Your task to perform on an android device: check storage Image 0: 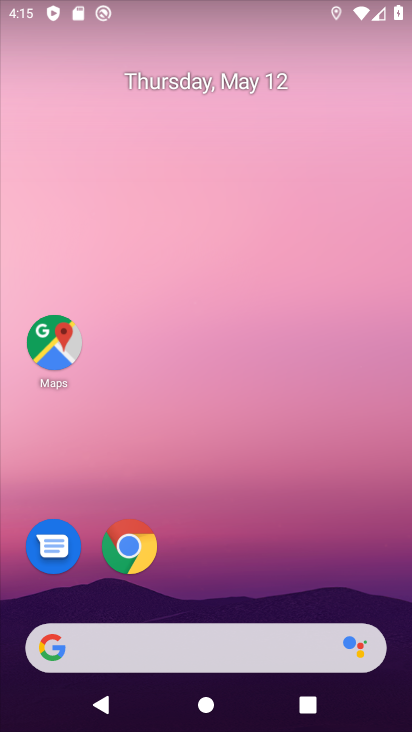
Step 0: drag from (297, 535) to (266, 23)
Your task to perform on an android device: check storage Image 1: 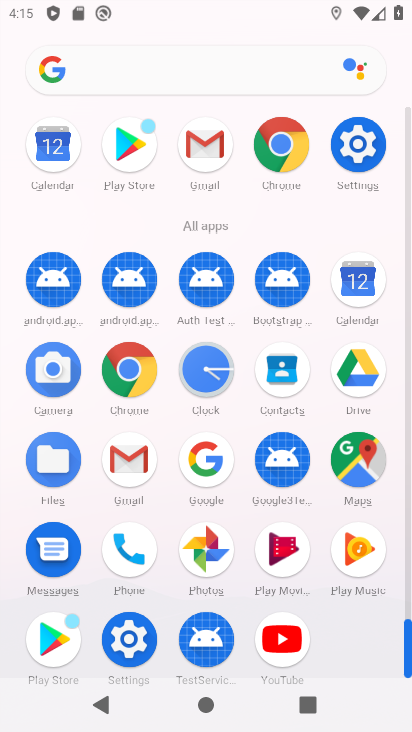
Step 1: drag from (2, 587) to (5, 273)
Your task to perform on an android device: check storage Image 2: 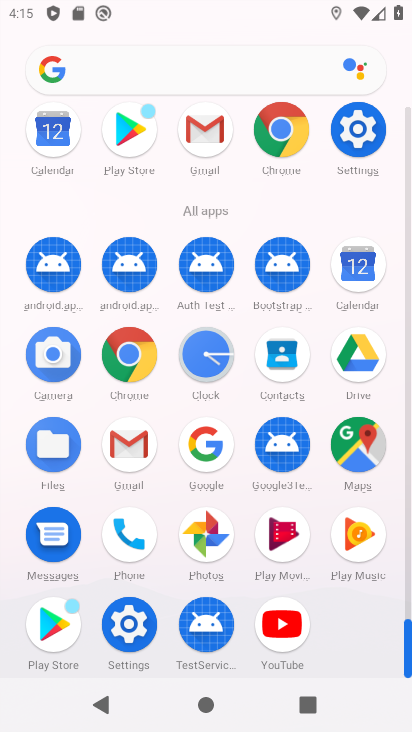
Step 2: click (124, 621)
Your task to perform on an android device: check storage Image 3: 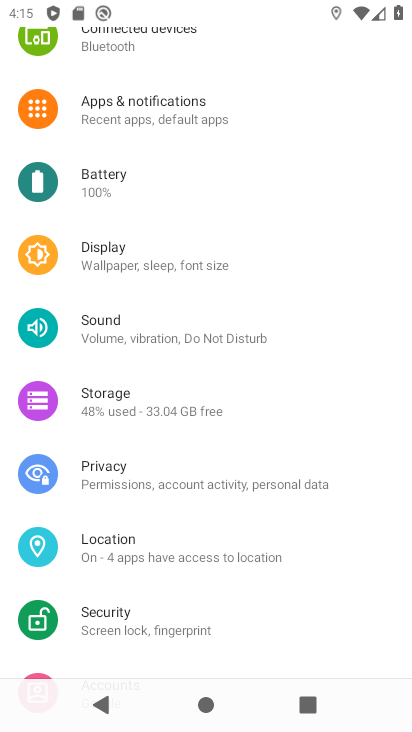
Step 3: drag from (195, 419) to (196, 162)
Your task to perform on an android device: check storage Image 4: 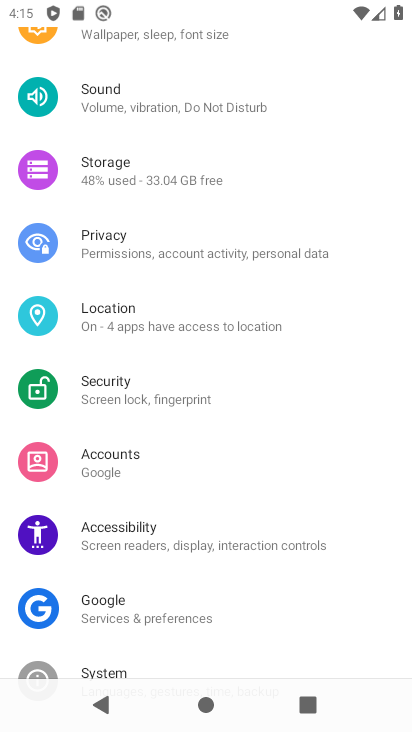
Step 4: drag from (250, 156) to (230, 465)
Your task to perform on an android device: check storage Image 5: 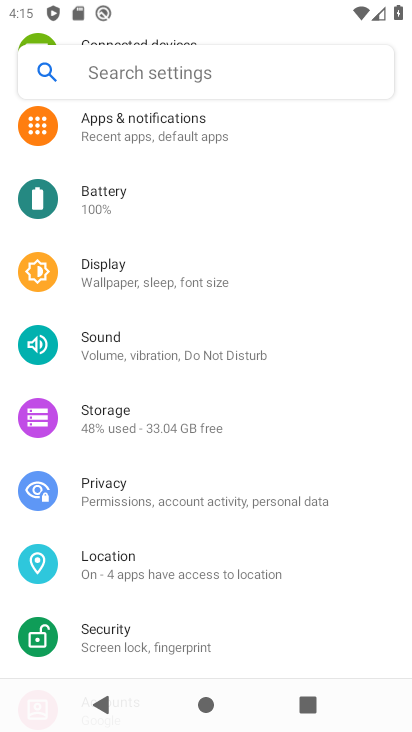
Step 5: drag from (197, 223) to (174, 593)
Your task to perform on an android device: check storage Image 6: 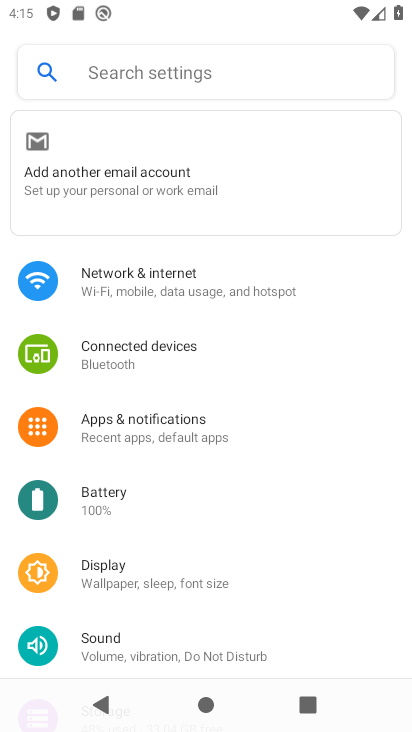
Step 6: drag from (209, 577) to (218, 288)
Your task to perform on an android device: check storage Image 7: 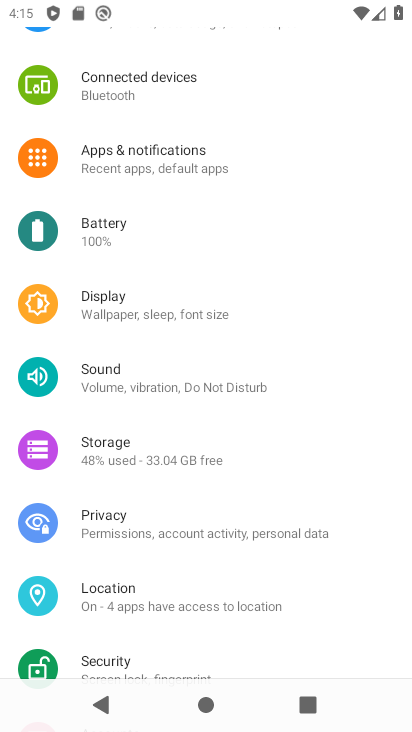
Step 7: drag from (127, 614) to (205, 230)
Your task to perform on an android device: check storage Image 8: 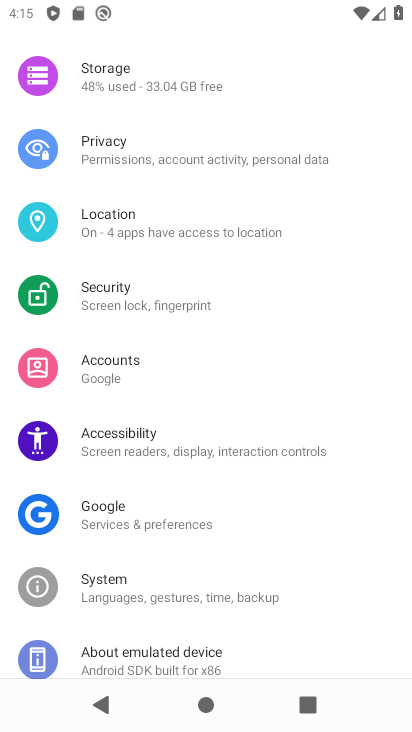
Step 8: drag from (166, 593) to (186, 202)
Your task to perform on an android device: check storage Image 9: 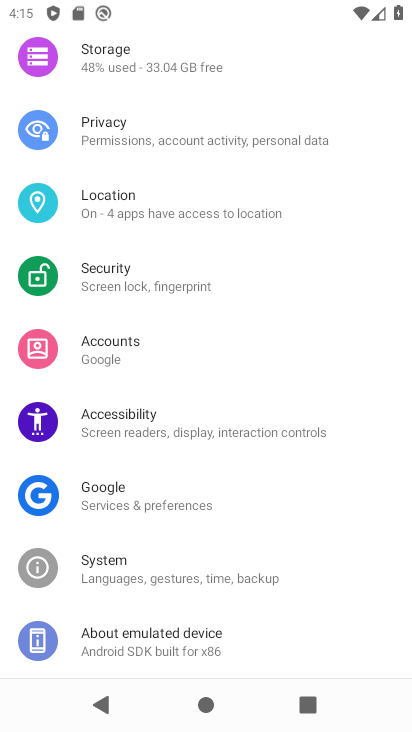
Step 9: drag from (164, 251) to (173, 477)
Your task to perform on an android device: check storage Image 10: 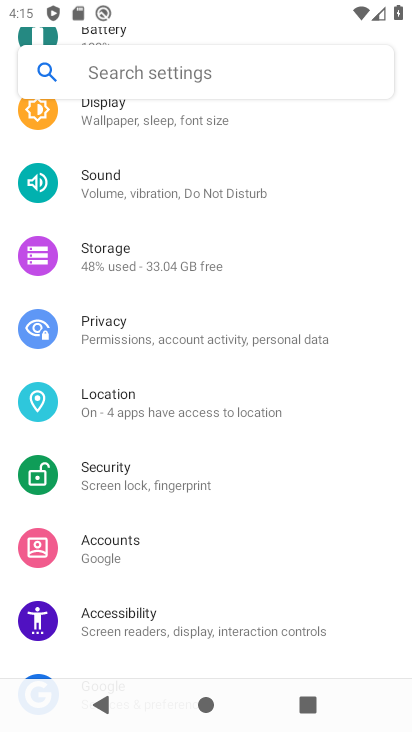
Step 10: click (133, 259)
Your task to perform on an android device: check storage Image 11: 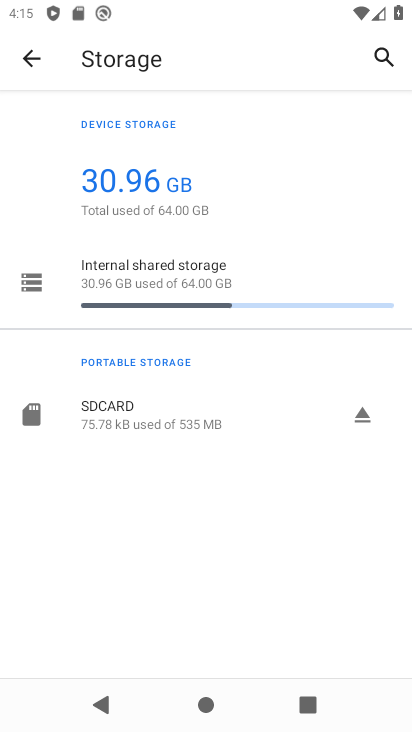
Step 11: task complete